Your task to perform on an android device: change timer sound Image 0: 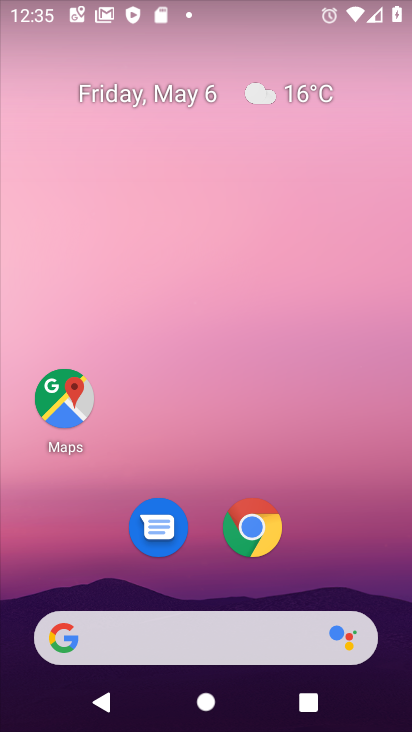
Step 0: drag from (327, 507) to (34, 95)
Your task to perform on an android device: change timer sound Image 1: 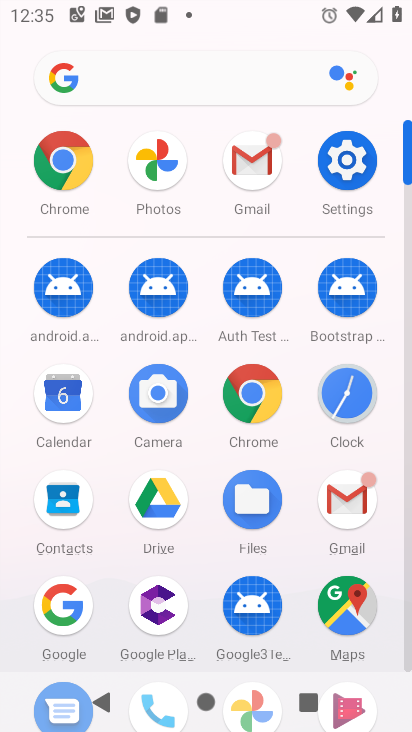
Step 1: click (340, 393)
Your task to perform on an android device: change timer sound Image 2: 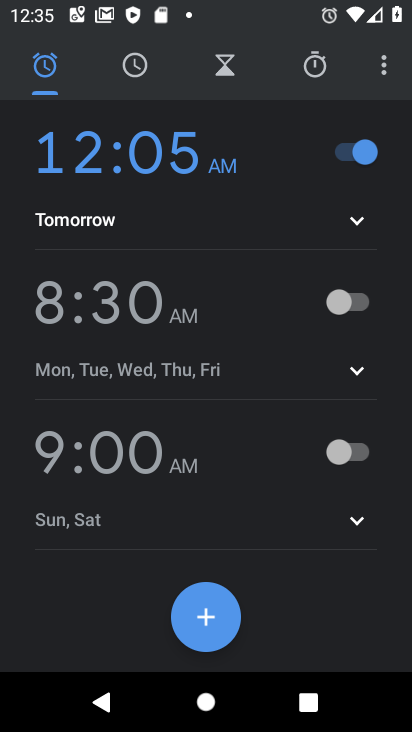
Step 2: click (381, 68)
Your task to perform on an android device: change timer sound Image 3: 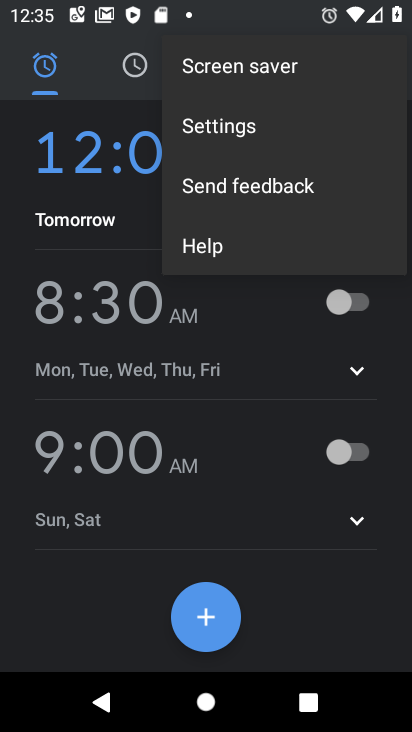
Step 3: click (214, 126)
Your task to perform on an android device: change timer sound Image 4: 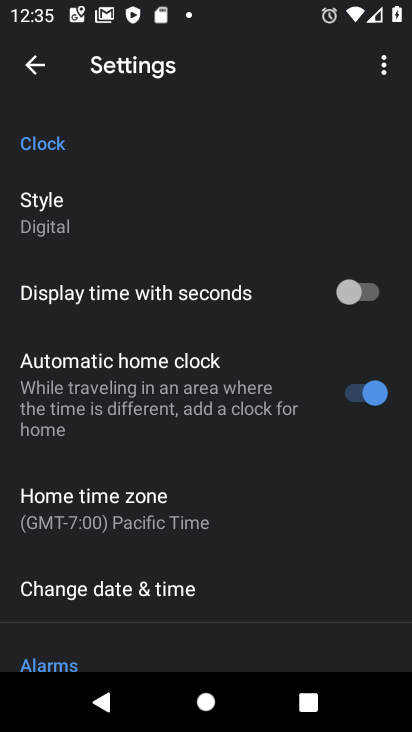
Step 4: drag from (166, 624) to (115, 158)
Your task to perform on an android device: change timer sound Image 5: 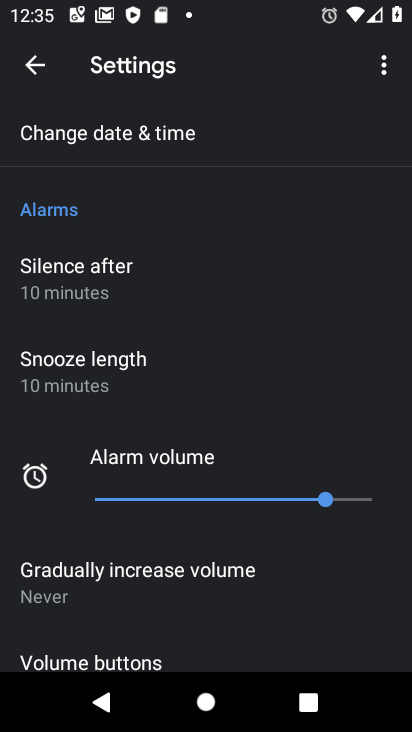
Step 5: drag from (135, 571) to (117, 165)
Your task to perform on an android device: change timer sound Image 6: 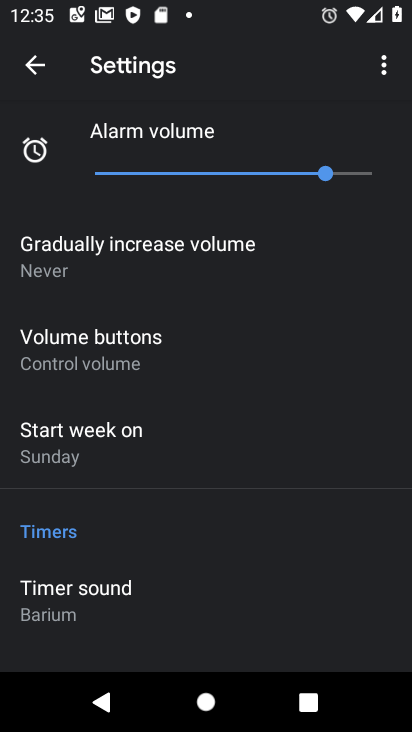
Step 6: drag from (93, 598) to (85, 388)
Your task to perform on an android device: change timer sound Image 7: 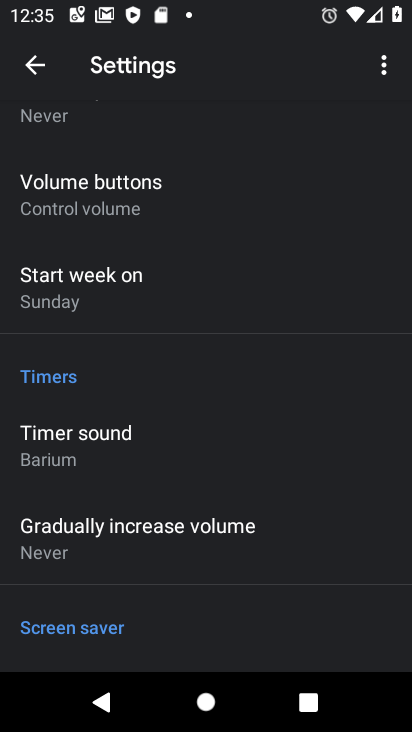
Step 7: click (67, 435)
Your task to perform on an android device: change timer sound Image 8: 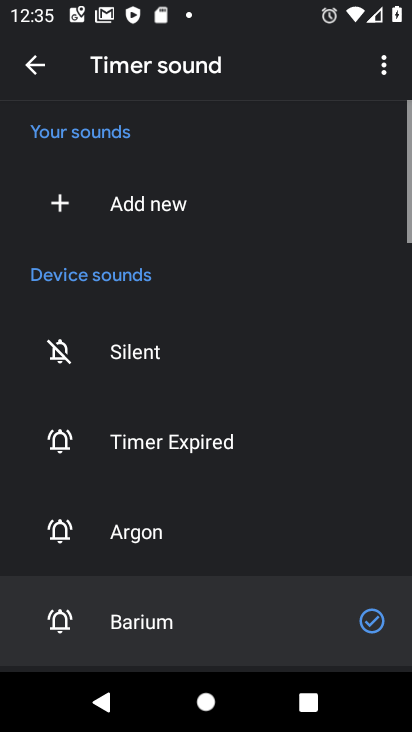
Step 8: drag from (178, 572) to (152, 211)
Your task to perform on an android device: change timer sound Image 9: 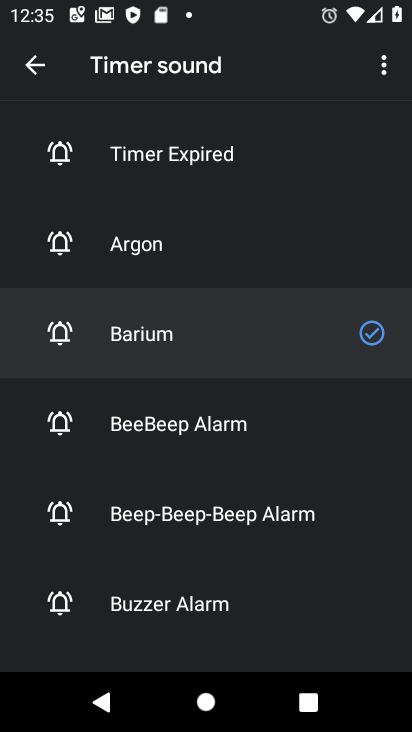
Step 9: drag from (166, 607) to (151, 292)
Your task to perform on an android device: change timer sound Image 10: 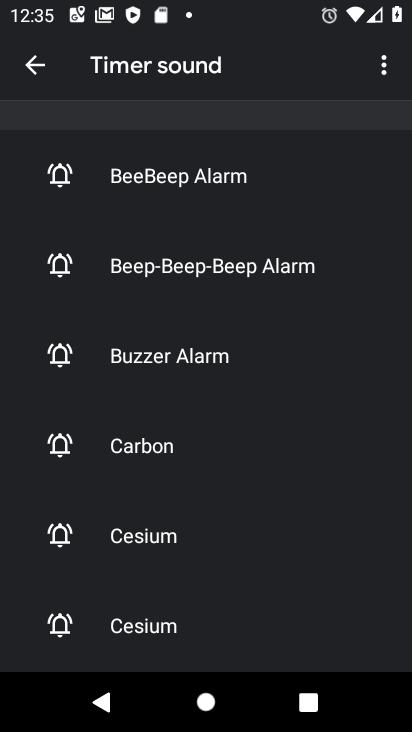
Step 10: click (166, 271)
Your task to perform on an android device: change timer sound Image 11: 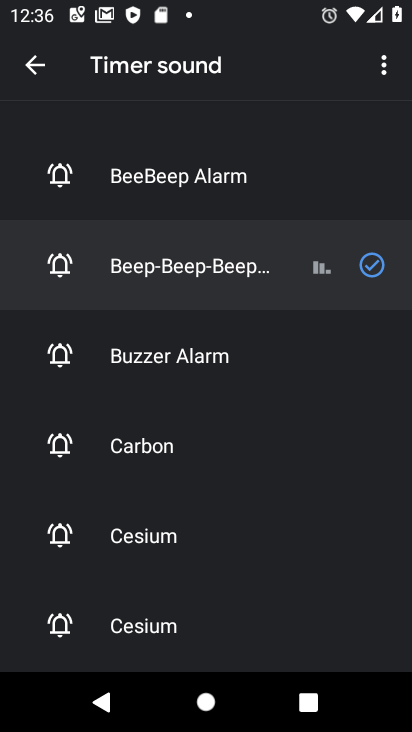
Step 11: task complete